Your task to perform on an android device: delete a single message in the gmail app Image 0: 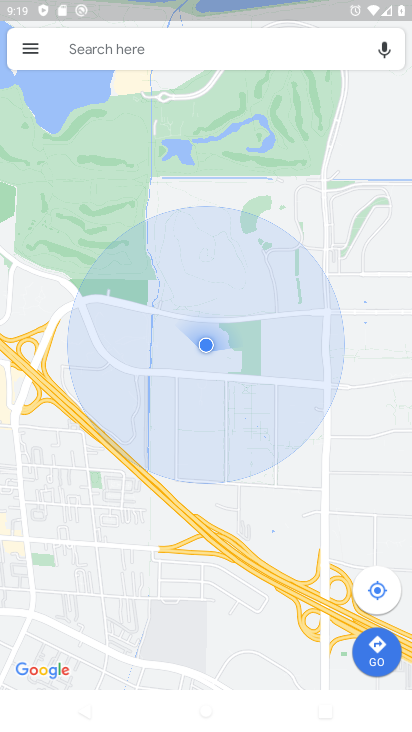
Step 0: press back button
Your task to perform on an android device: delete a single message in the gmail app Image 1: 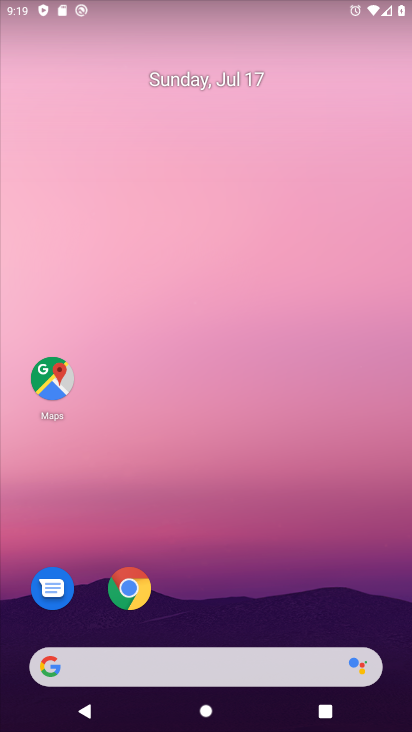
Step 1: drag from (252, 617) to (212, 146)
Your task to perform on an android device: delete a single message in the gmail app Image 2: 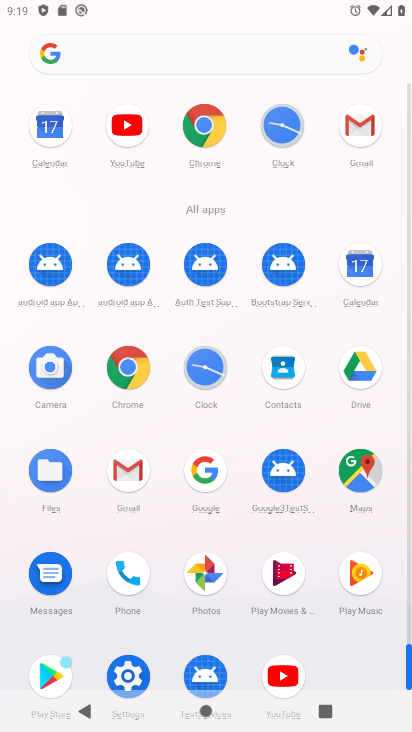
Step 2: click (118, 476)
Your task to perform on an android device: delete a single message in the gmail app Image 3: 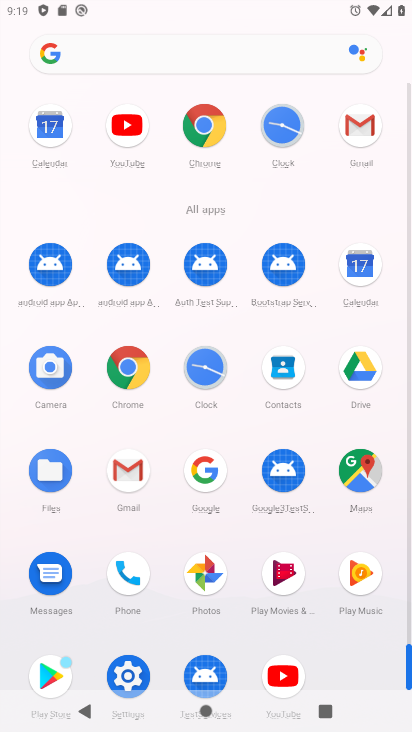
Step 3: click (118, 477)
Your task to perform on an android device: delete a single message in the gmail app Image 4: 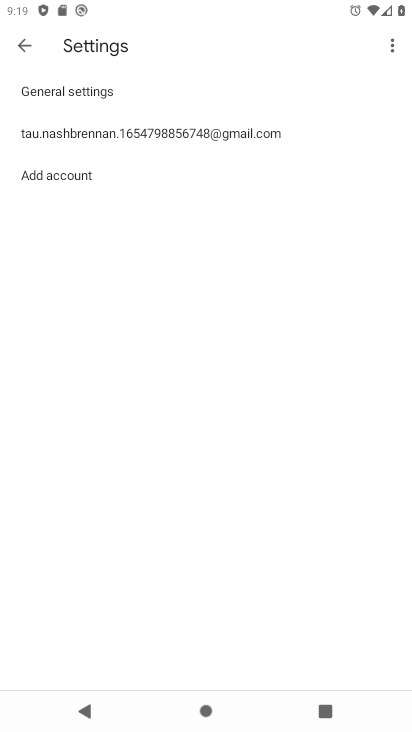
Step 4: click (127, 474)
Your task to perform on an android device: delete a single message in the gmail app Image 5: 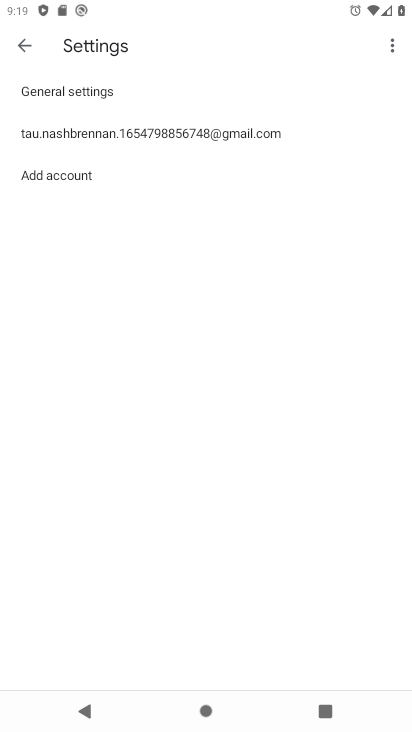
Step 5: click (127, 474)
Your task to perform on an android device: delete a single message in the gmail app Image 6: 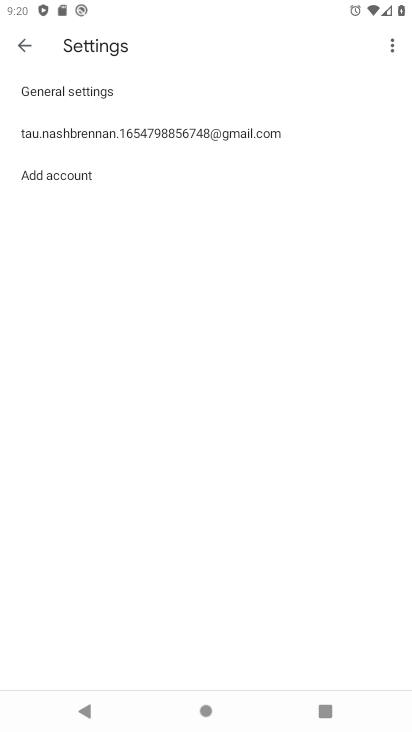
Step 6: click (15, 49)
Your task to perform on an android device: delete a single message in the gmail app Image 7: 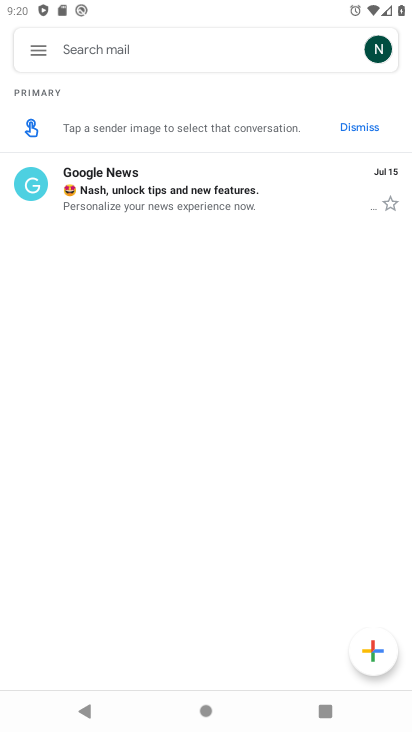
Step 7: click (210, 196)
Your task to perform on an android device: delete a single message in the gmail app Image 8: 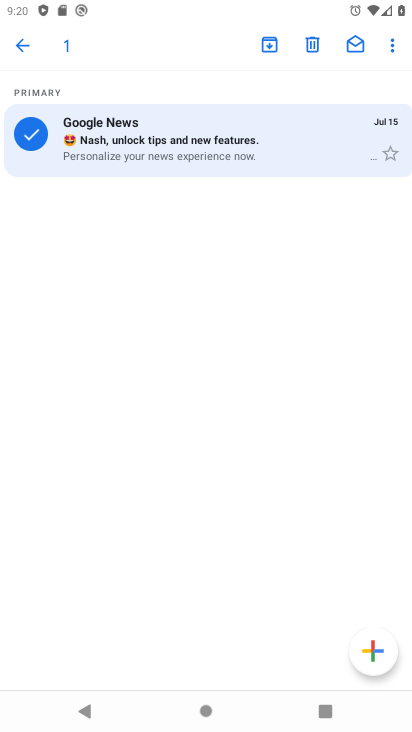
Step 8: click (303, 31)
Your task to perform on an android device: delete a single message in the gmail app Image 9: 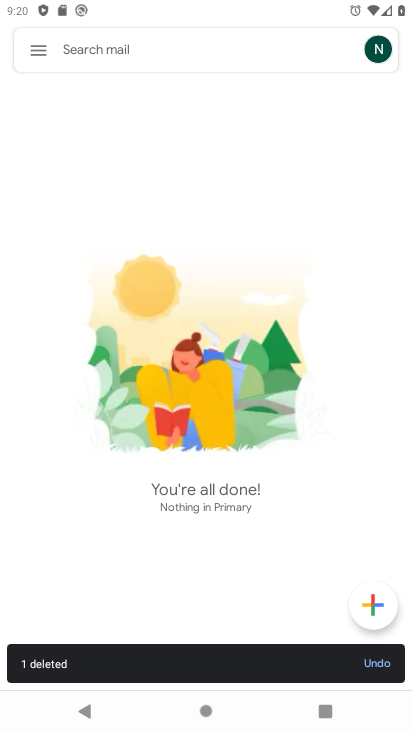
Step 9: task complete